Your task to perform on an android device: toggle notifications settings in the gmail app Image 0: 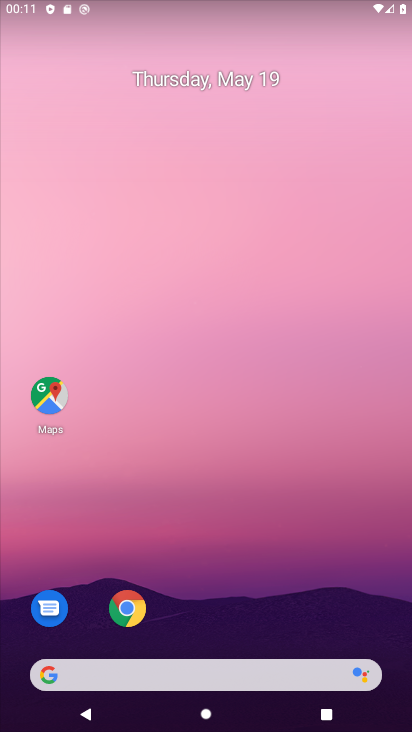
Step 0: drag from (197, 676) to (237, 186)
Your task to perform on an android device: toggle notifications settings in the gmail app Image 1: 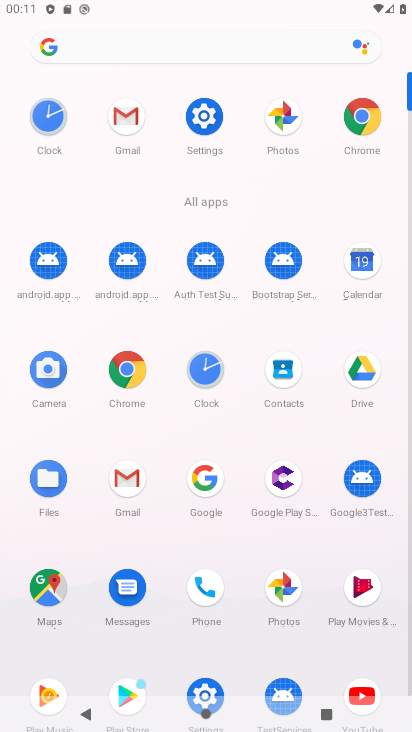
Step 1: click (132, 493)
Your task to perform on an android device: toggle notifications settings in the gmail app Image 2: 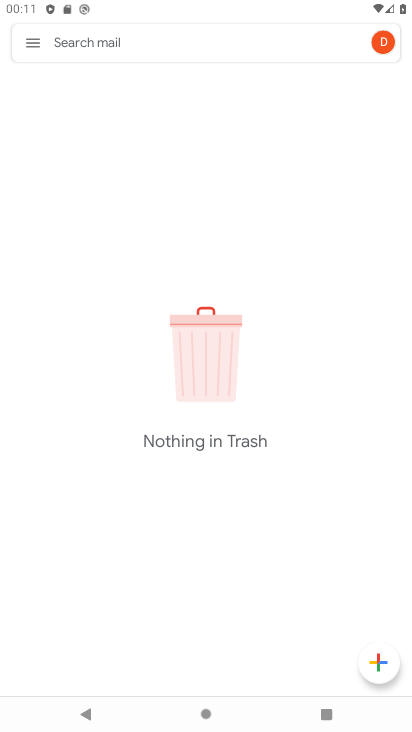
Step 2: click (41, 39)
Your task to perform on an android device: toggle notifications settings in the gmail app Image 3: 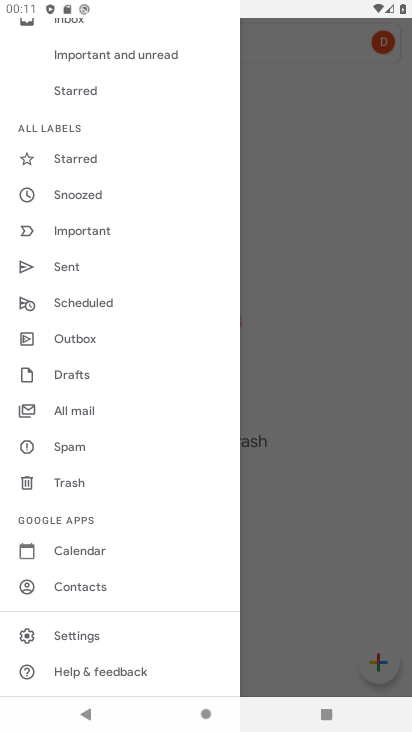
Step 3: click (97, 633)
Your task to perform on an android device: toggle notifications settings in the gmail app Image 4: 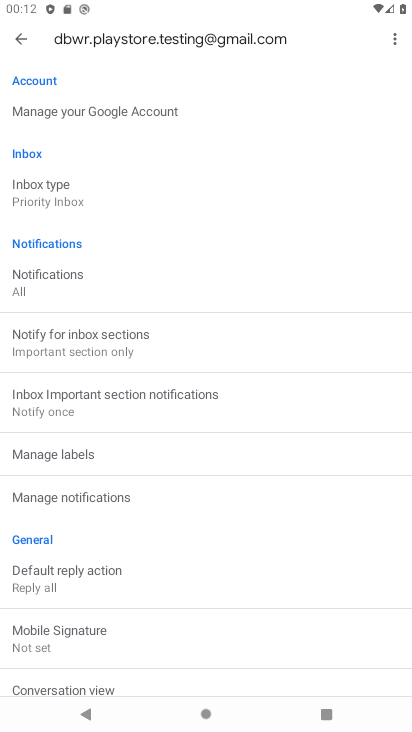
Step 4: click (72, 286)
Your task to perform on an android device: toggle notifications settings in the gmail app Image 5: 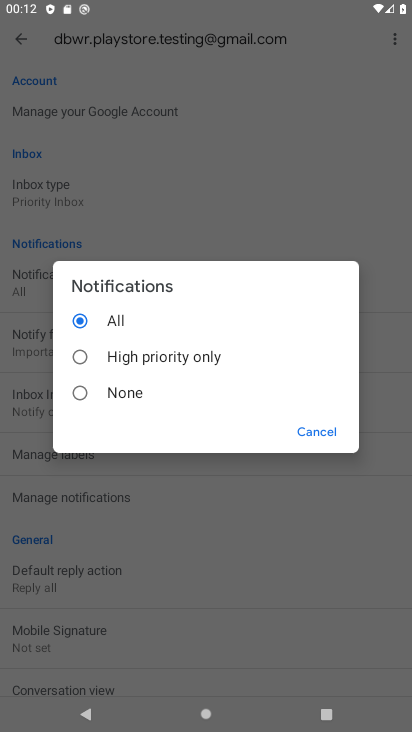
Step 5: task complete